Your task to perform on an android device: Open Google Image 0: 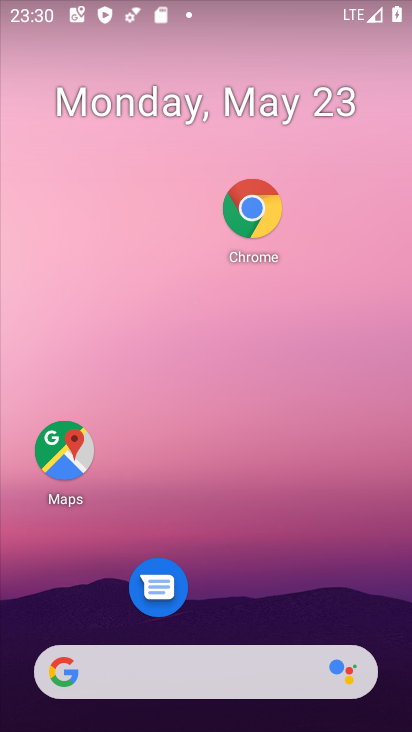
Step 0: drag from (260, 705) to (216, 138)
Your task to perform on an android device: Open Google Image 1: 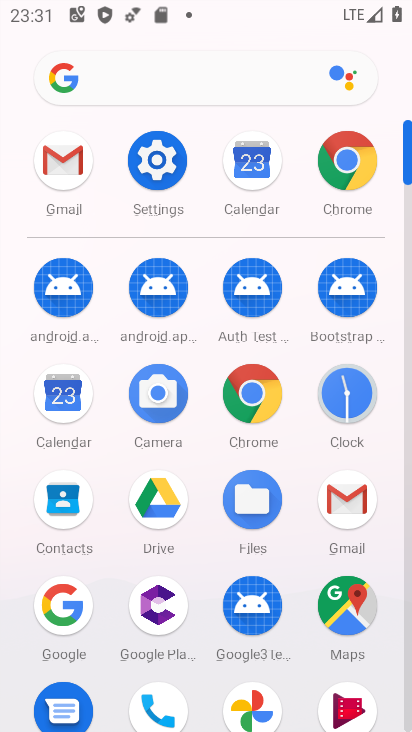
Step 1: click (71, 600)
Your task to perform on an android device: Open Google Image 2: 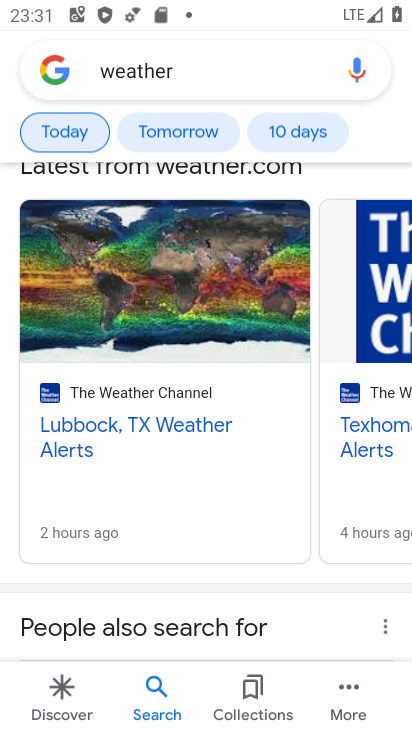
Step 2: task complete